Your task to perform on an android device: View the shopping cart on newegg. Search for "macbook pro" on newegg, select the first entry, and add it to the cart. Image 0: 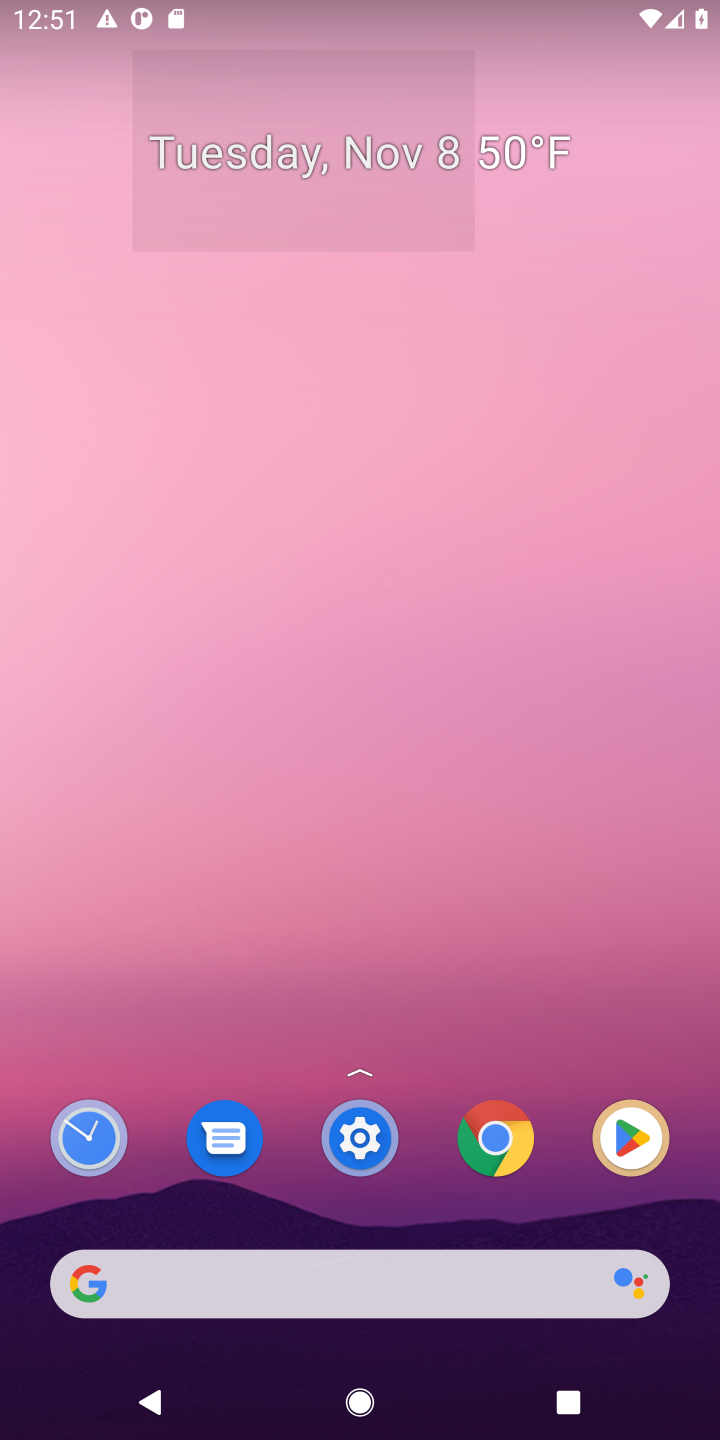
Step 0: click (356, 1303)
Your task to perform on an android device: View the shopping cart on newegg. Search for "macbook pro" on newegg, select the first entry, and add it to the cart. Image 1: 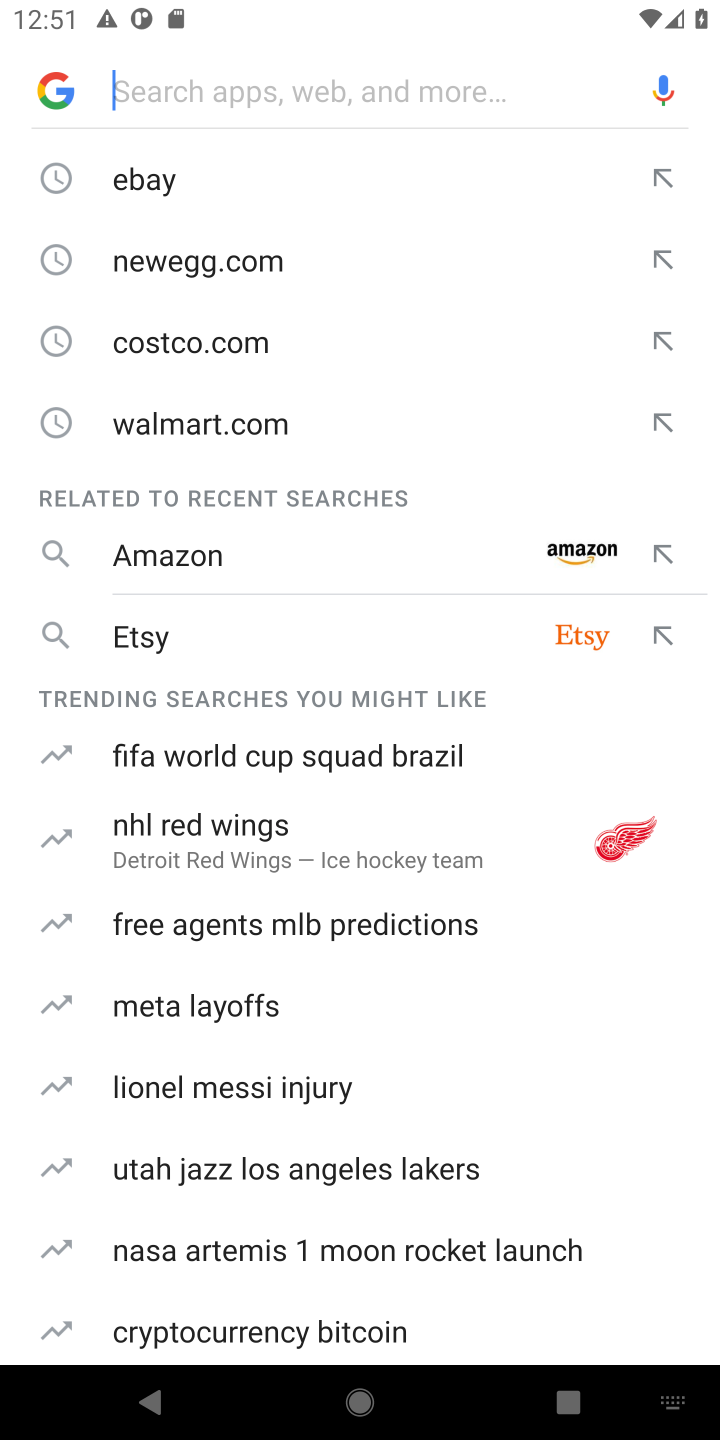
Step 1: click (305, 276)
Your task to perform on an android device: View the shopping cart on newegg. Search for "macbook pro" on newegg, select the first entry, and add it to the cart. Image 2: 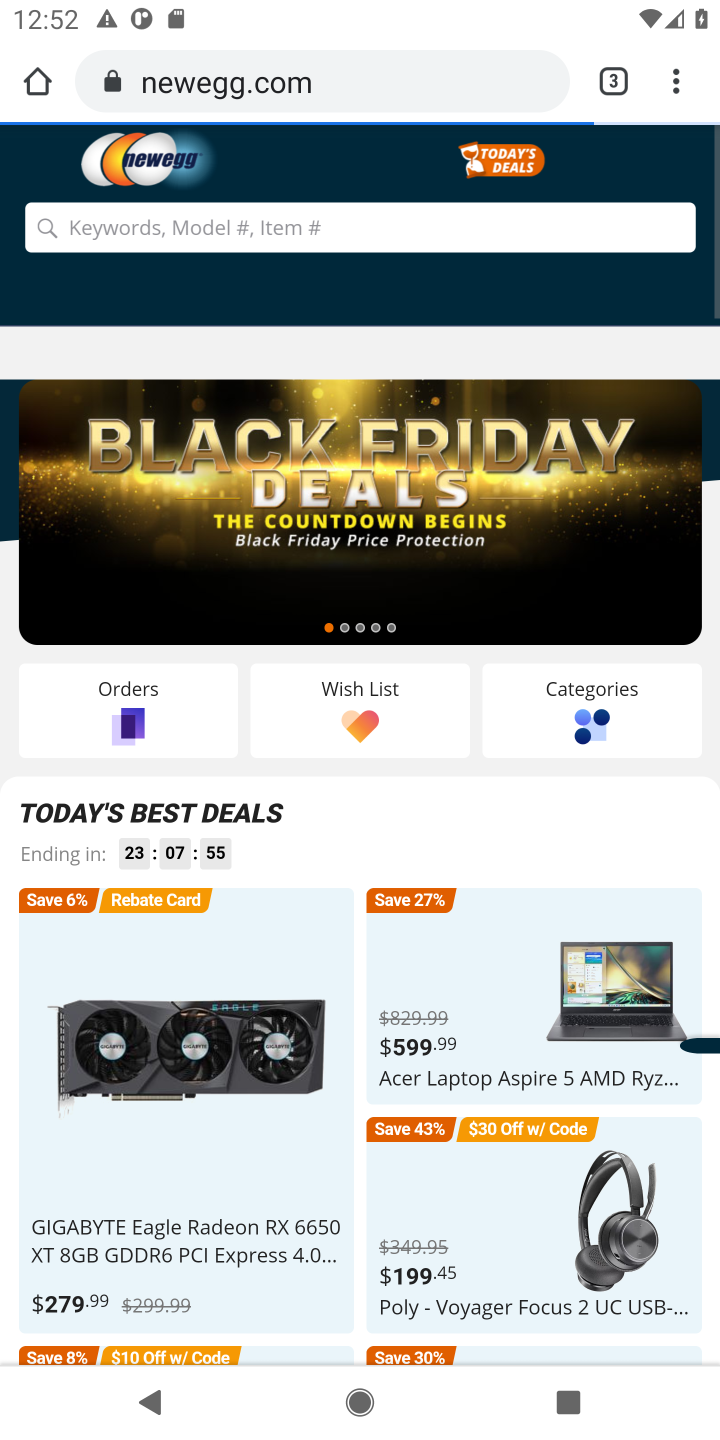
Step 2: click (386, 240)
Your task to perform on an android device: View the shopping cart on newegg. Search for "macbook pro" on newegg, select the first entry, and add it to the cart. Image 3: 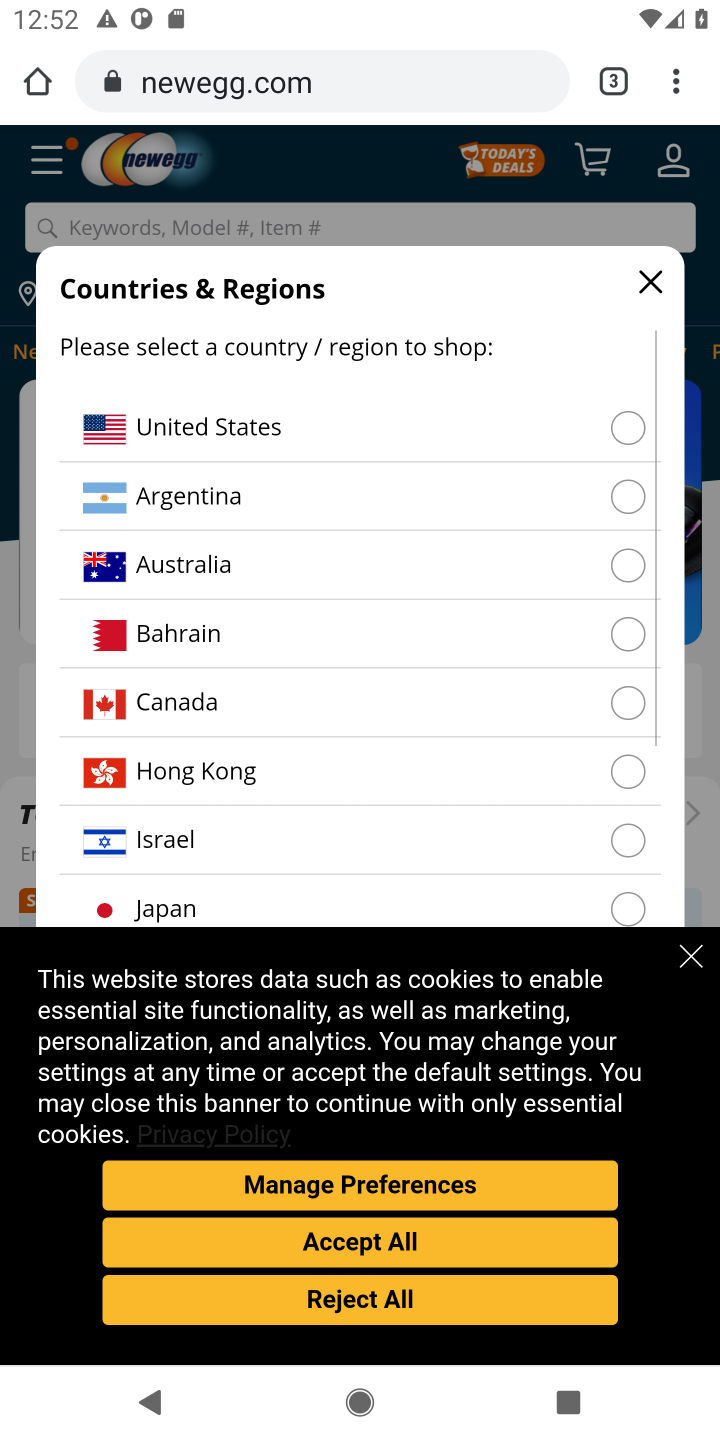
Step 3: type "mackbook pro"
Your task to perform on an android device: View the shopping cart on newegg. Search for "macbook pro" on newegg, select the first entry, and add it to the cart. Image 4: 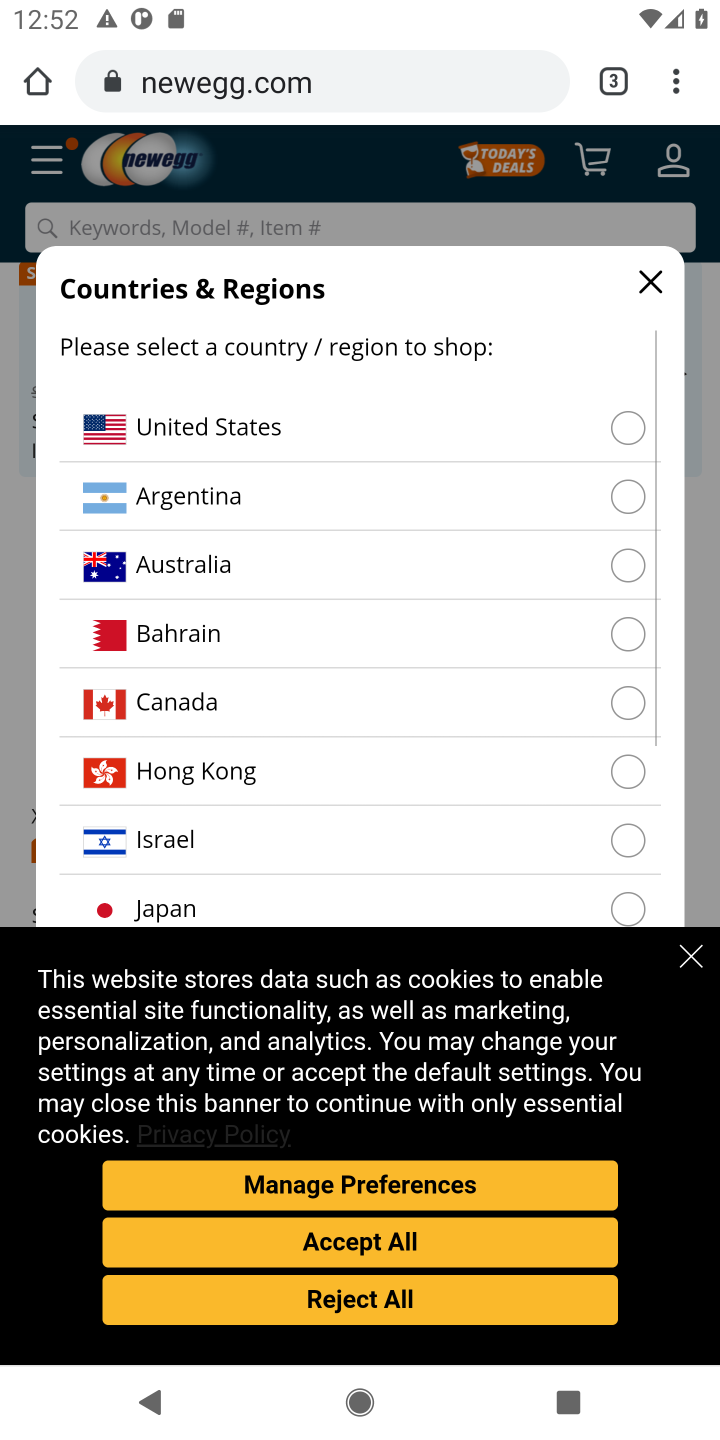
Step 4: click (504, 497)
Your task to perform on an android device: View the shopping cart on newegg. Search for "macbook pro" on newegg, select the first entry, and add it to the cart. Image 5: 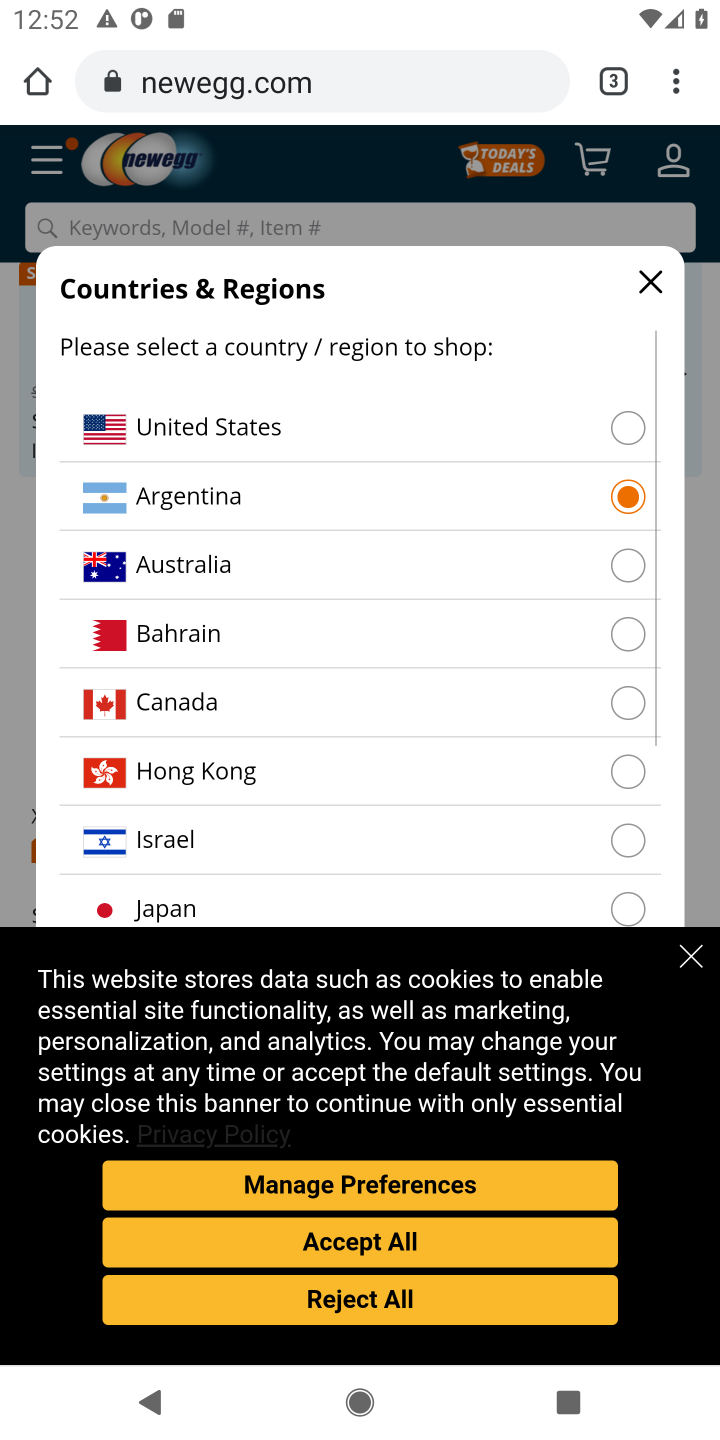
Step 5: click (454, 1242)
Your task to perform on an android device: View the shopping cart on newegg. Search for "macbook pro" on newegg, select the first entry, and add it to the cart. Image 6: 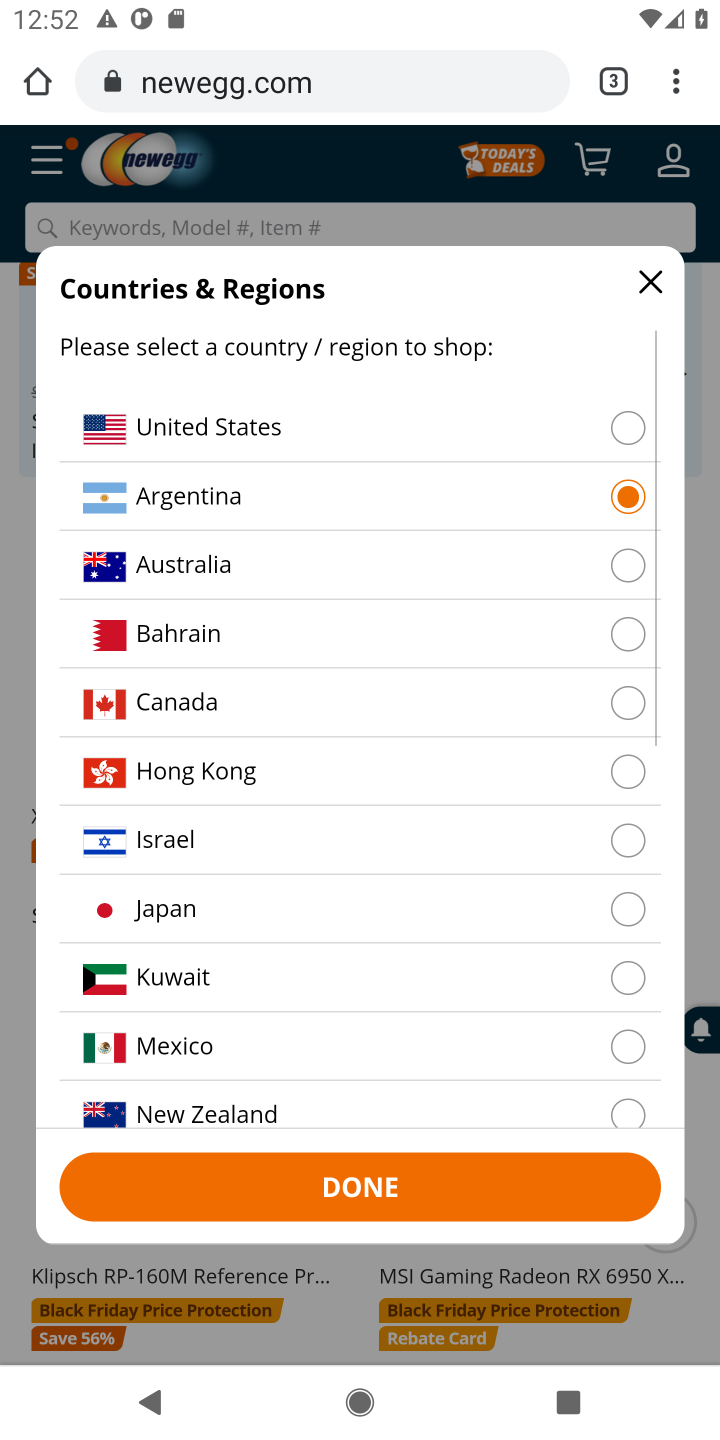
Step 6: click (357, 1210)
Your task to perform on an android device: View the shopping cart on newegg. Search for "macbook pro" on newegg, select the first entry, and add it to the cart. Image 7: 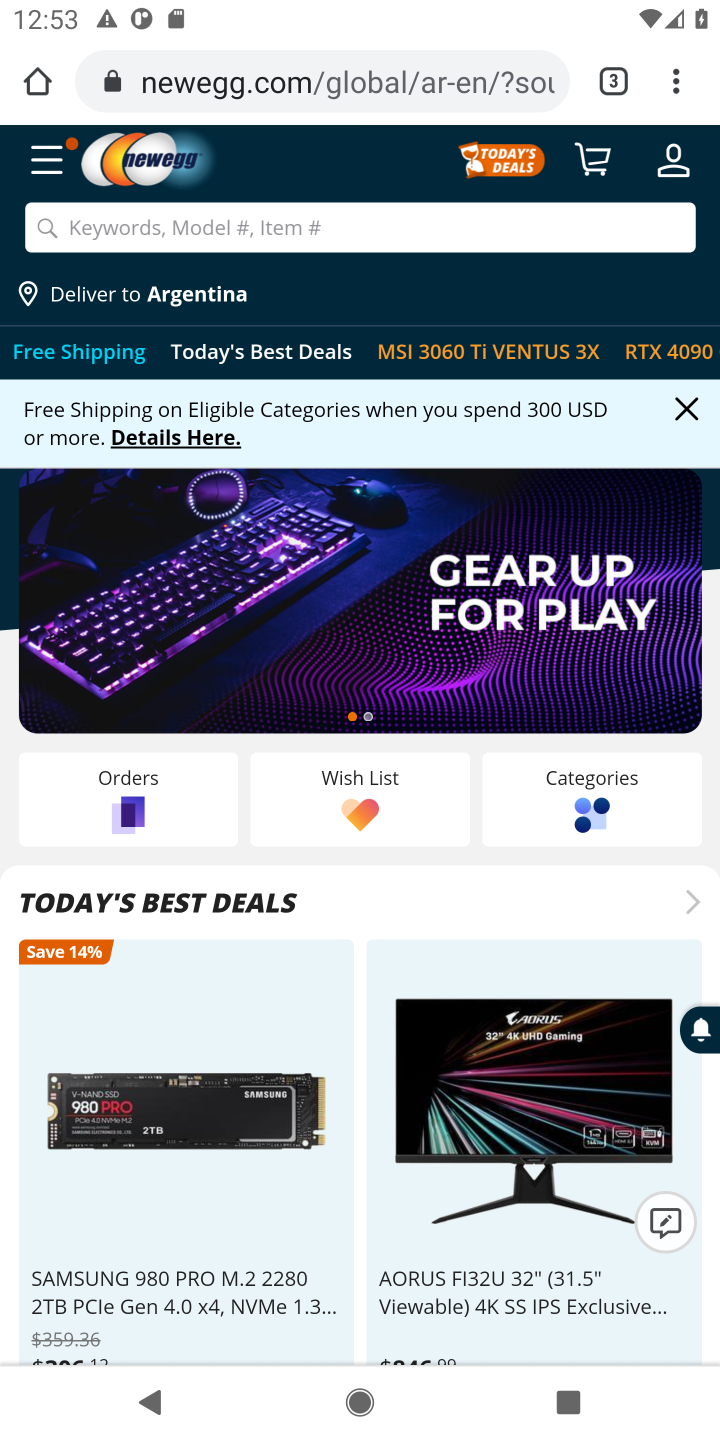
Step 7: task complete